Your task to perform on an android device: Go to eBay Image 0: 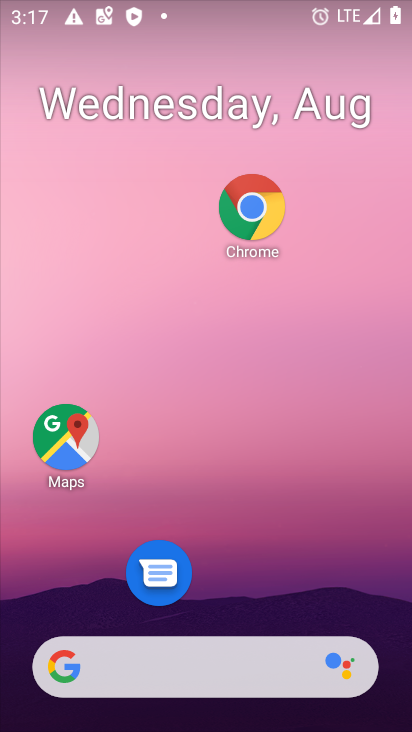
Step 0: press home button
Your task to perform on an android device: Go to eBay Image 1: 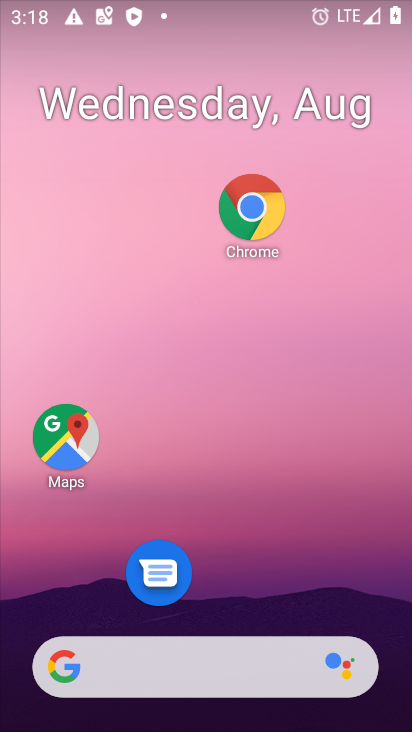
Step 1: drag from (227, 639) to (249, 153)
Your task to perform on an android device: Go to eBay Image 2: 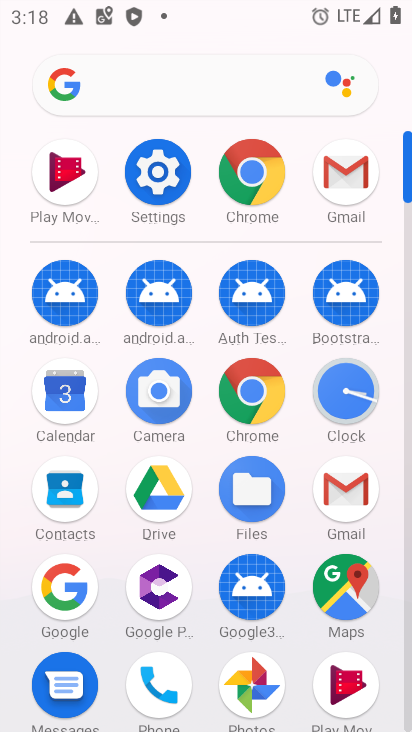
Step 2: drag from (198, 527) to (251, 255)
Your task to perform on an android device: Go to eBay Image 3: 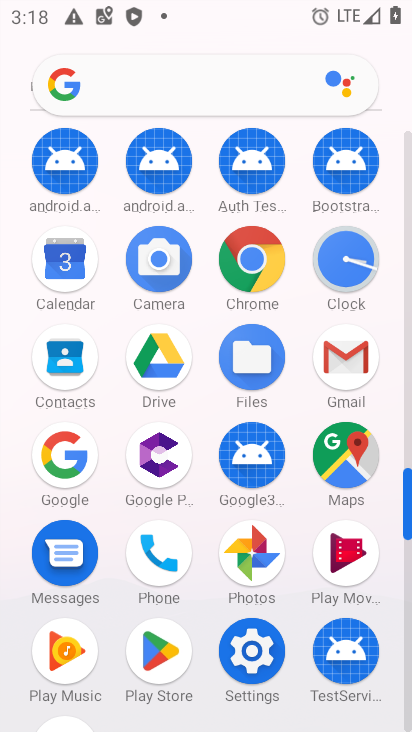
Step 3: click (262, 268)
Your task to perform on an android device: Go to eBay Image 4: 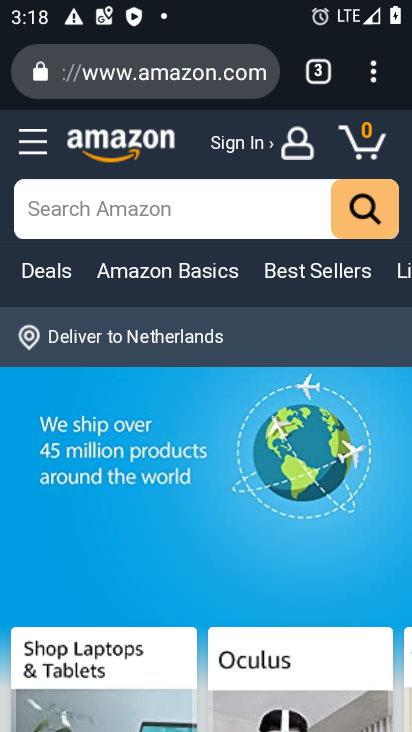
Step 4: click (220, 58)
Your task to perform on an android device: Go to eBay Image 5: 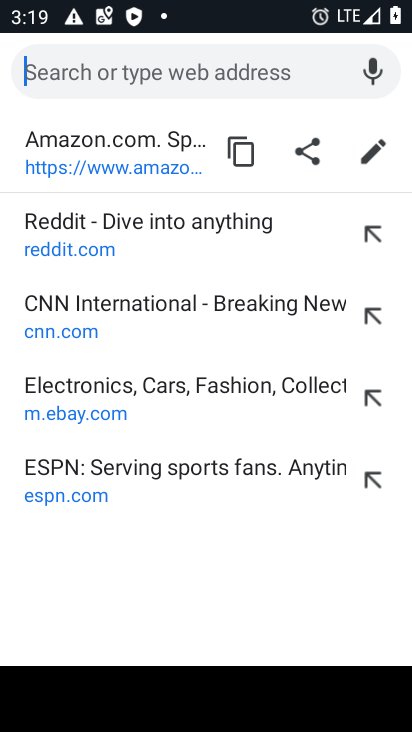
Step 5: type "ebay"
Your task to perform on an android device: Go to eBay Image 6: 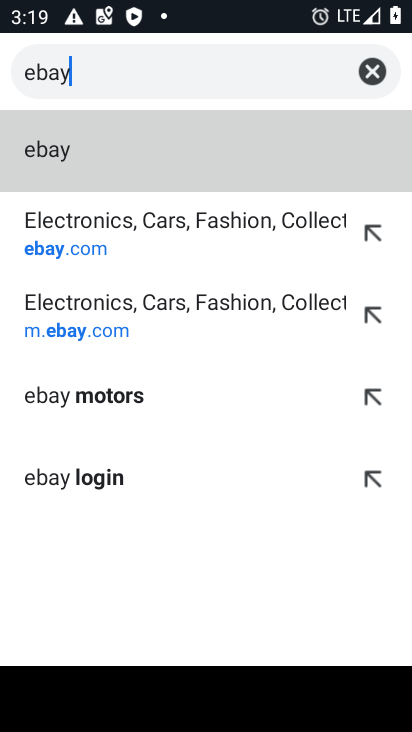
Step 6: click (111, 233)
Your task to perform on an android device: Go to eBay Image 7: 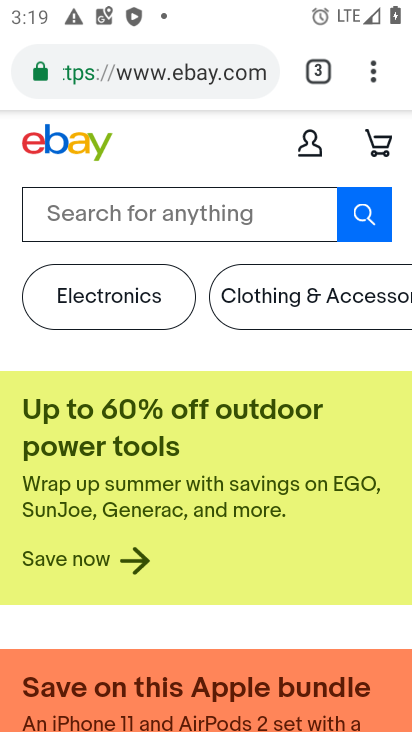
Step 7: task complete